Your task to perform on an android device: Show me recent news Image 0: 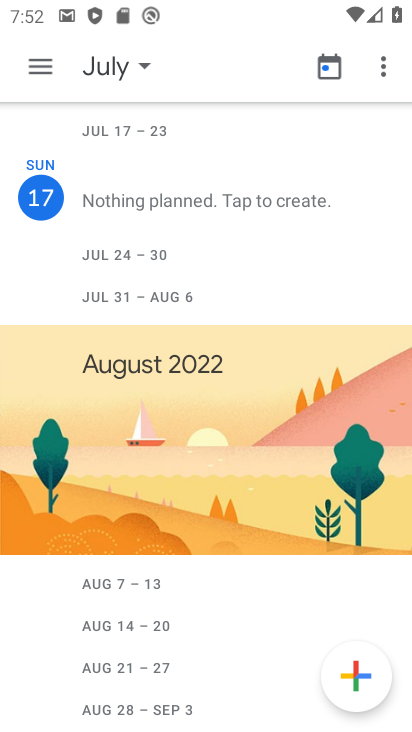
Step 0: press home button
Your task to perform on an android device: Show me recent news Image 1: 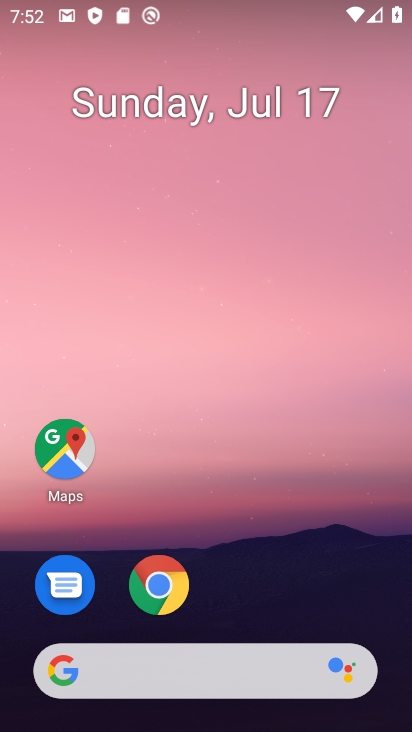
Step 1: click (173, 669)
Your task to perform on an android device: Show me recent news Image 2: 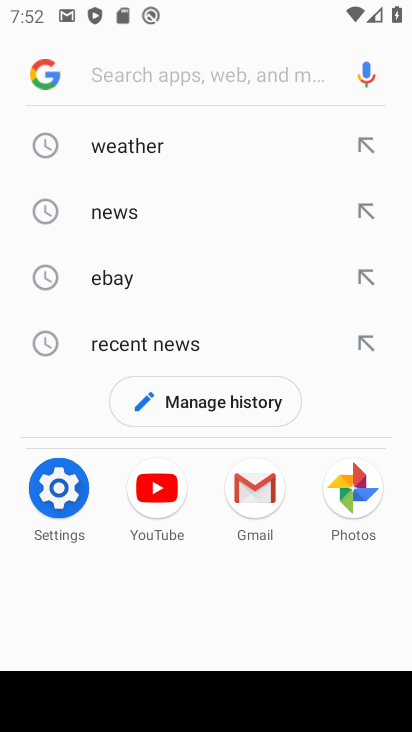
Step 2: click (125, 345)
Your task to perform on an android device: Show me recent news Image 3: 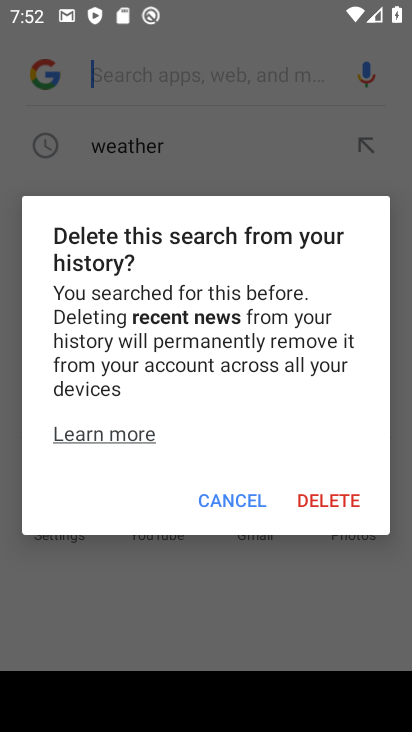
Step 3: click (236, 499)
Your task to perform on an android device: Show me recent news Image 4: 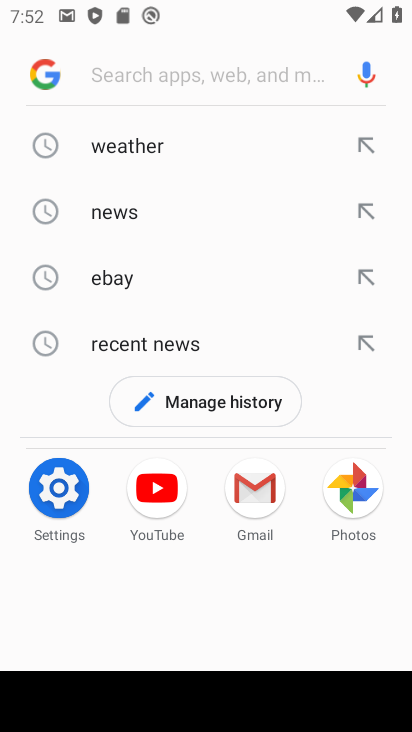
Step 4: click (171, 343)
Your task to perform on an android device: Show me recent news Image 5: 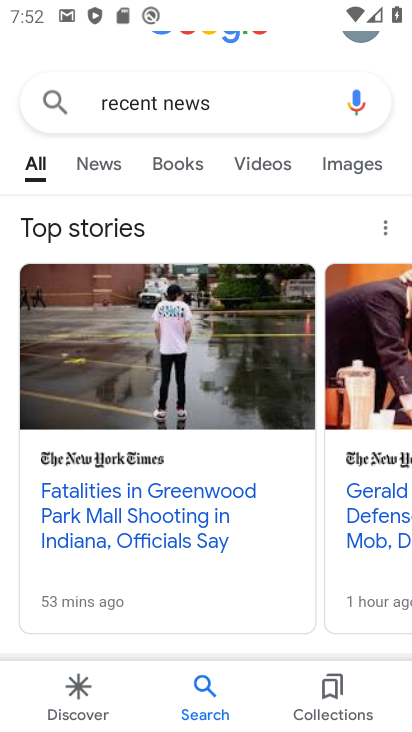
Step 5: click (108, 158)
Your task to perform on an android device: Show me recent news Image 6: 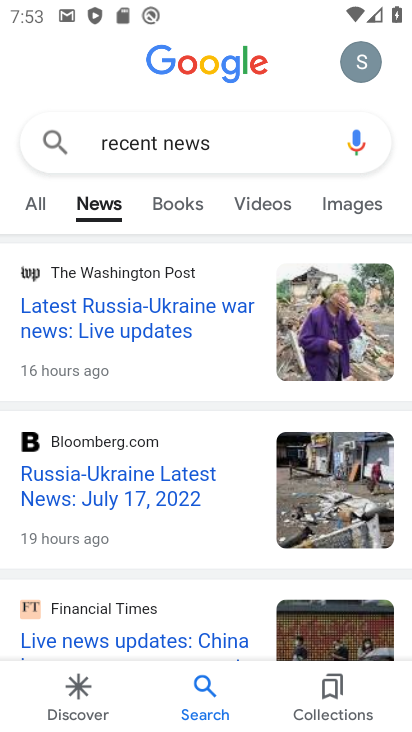
Step 6: task complete